Your task to perform on an android device: turn off notifications in google photos Image 0: 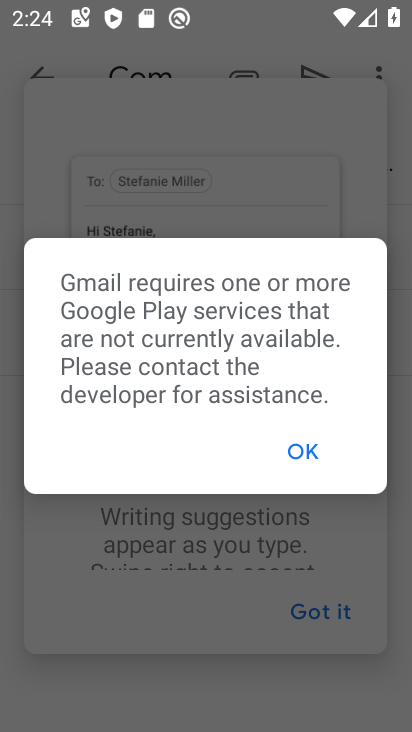
Step 0: press home button
Your task to perform on an android device: turn off notifications in google photos Image 1: 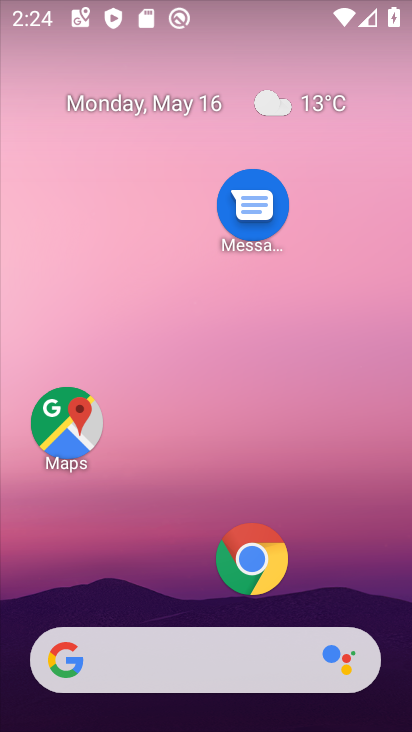
Step 1: drag from (161, 592) to (175, 208)
Your task to perform on an android device: turn off notifications in google photos Image 2: 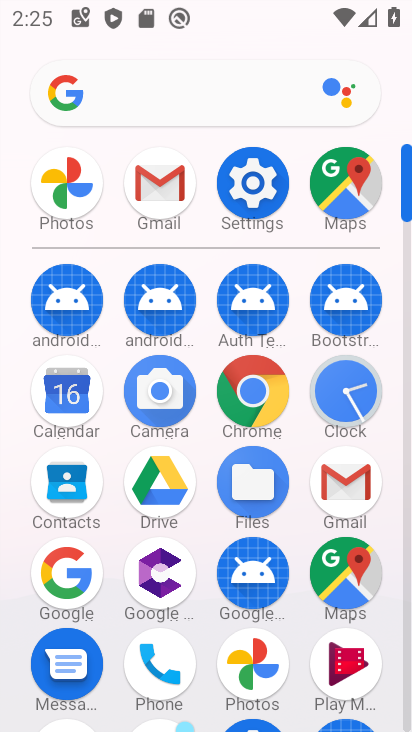
Step 2: click (257, 666)
Your task to perform on an android device: turn off notifications in google photos Image 3: 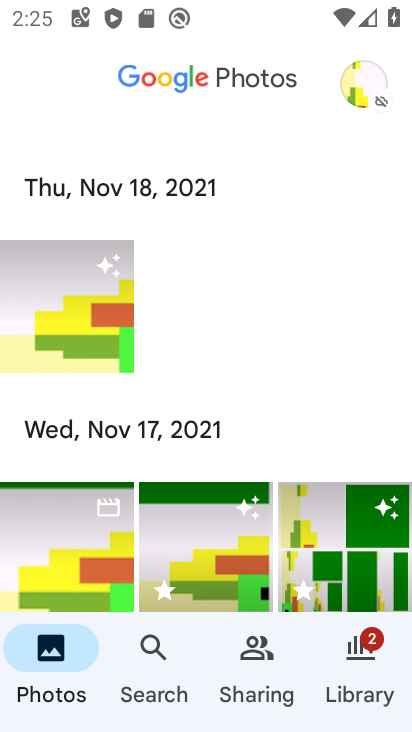
Step 3: click (374, 78)
Your task to perform on an android device: turn off notifications in google photos Image 4: 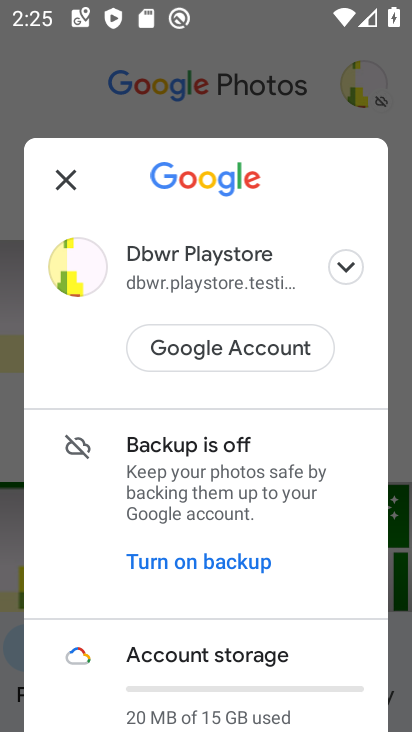
Step 4: drag from (213, 507) to (254, 183)
Your task to perform on an android device: turn off notifications in google photos Image 5: 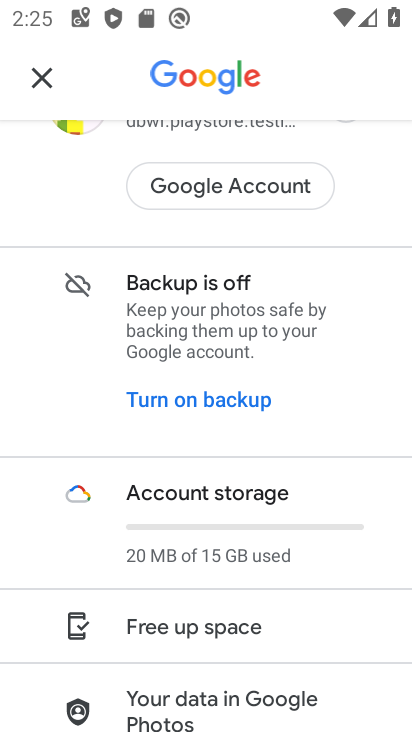
Step 5: drag from (199, 613) to (256, 230)
Your task to perform on an android device: turn off notifications in google photos Image 6: 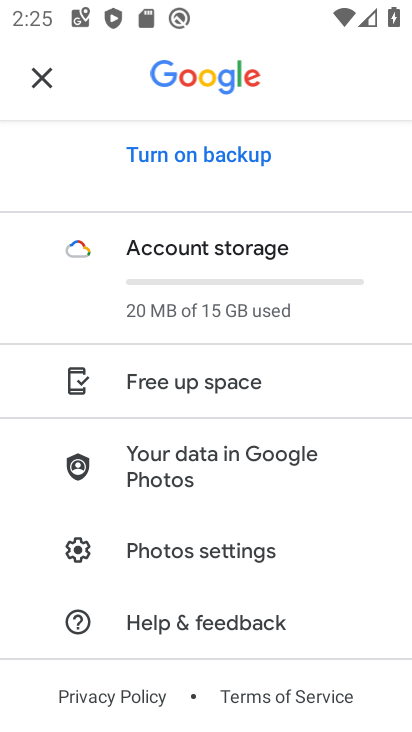
Step 6: click (180, 556)
Your task to perform on an android device: turn off notifications in google photos Image 7: 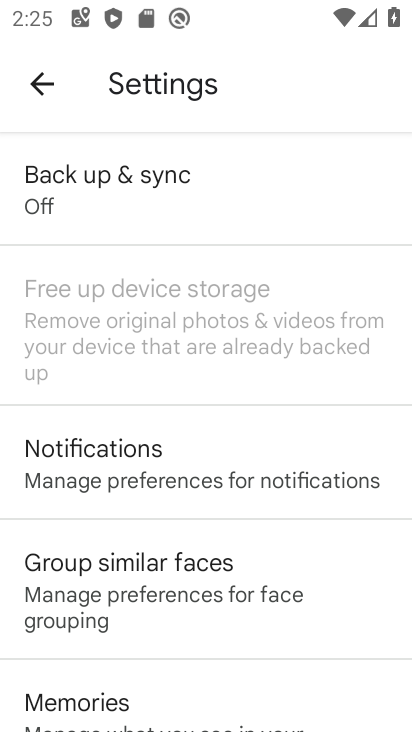
Step 7: click (172, 455)
Your task to perform on an android device: turn off notifications in google photos Image 8: 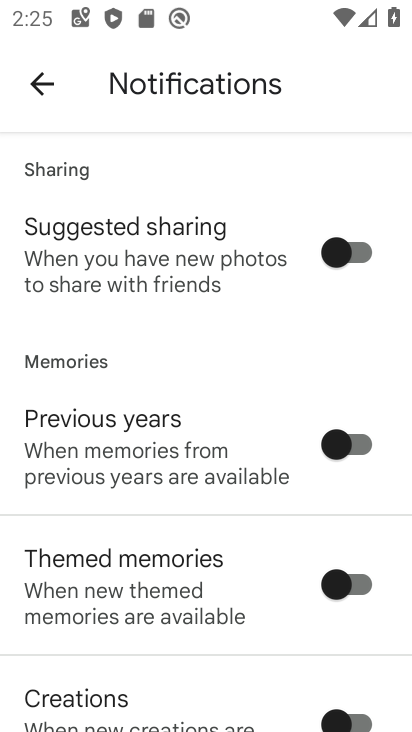
Step 8: drag from (207, 383) to (270, 93)
Your task to perform on an android device: turn off notifications in google photos Image 9: 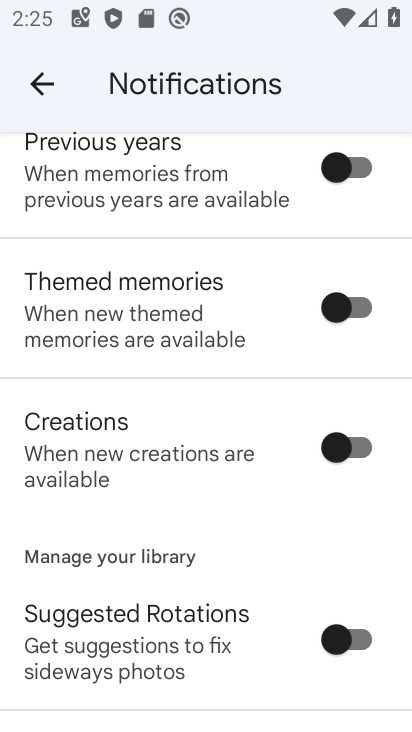
Step 9: drag from (168, 593) to (223, 335)
Your task to perform on an android device: turn off notifications in google photos Image 10: 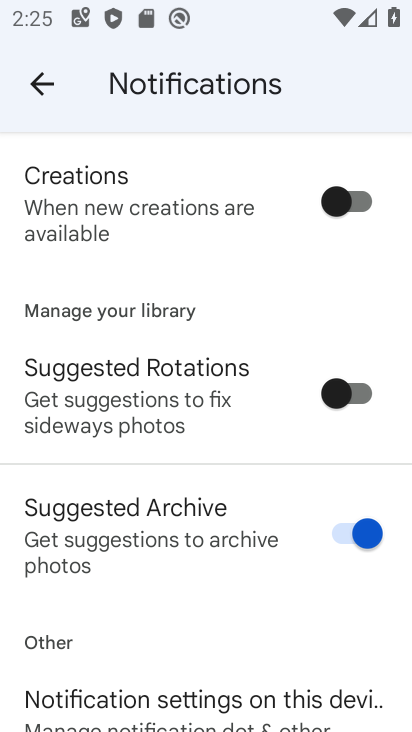
Step 10: drag from (155, 180) to (300, 111)
Your task to perform on an android device: turn off notifications in google photos Image 11: 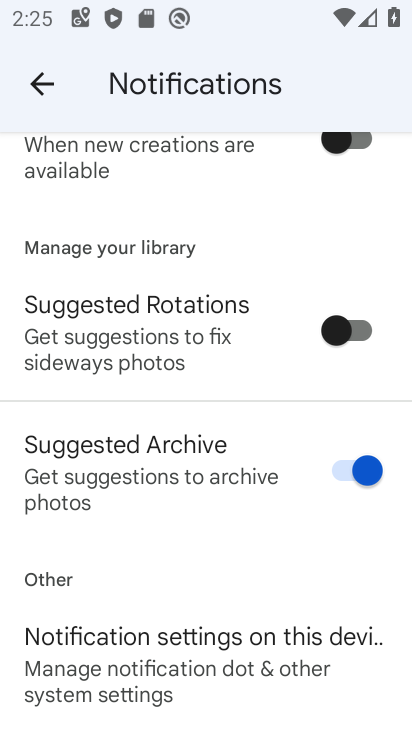
Step 11: click (121, 648)
Your task to perform on an android device: turn off notifications in google photos Image 12: 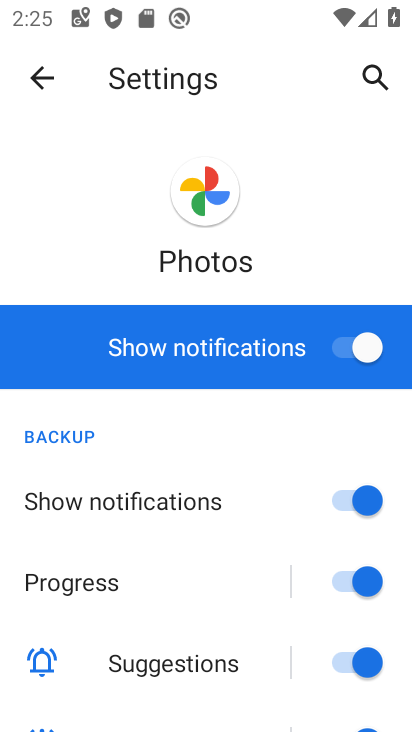
Step 12: click (345, 340)
Your task to perform on an android device: turn off notifications in google photos Image 13: 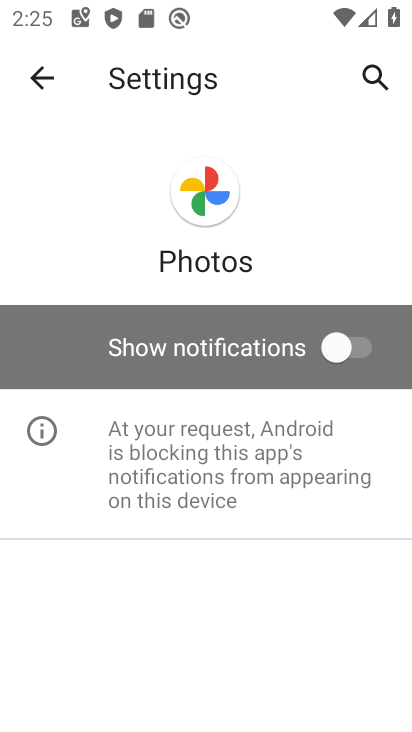
Step 13: task complete